Your task to perform on an android device: Search for duracell triple a on target, select the first entry, and add it to the cart. Image 0: 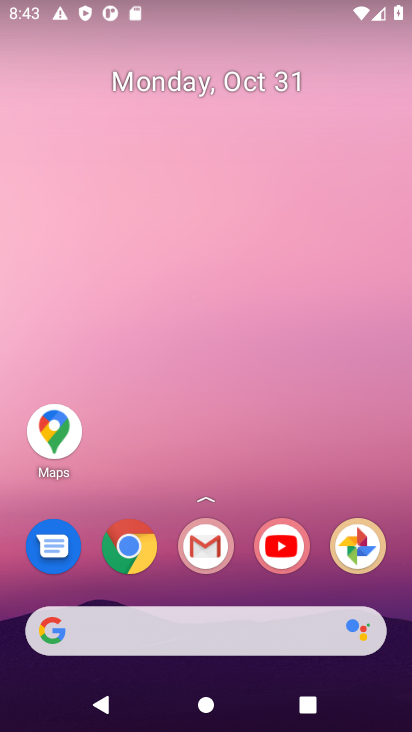
Step 0: click (141, 551)
Your task to perform on an android device: Search for duracell triple a on target, select the first entry, and add it to the cart. Image 1: 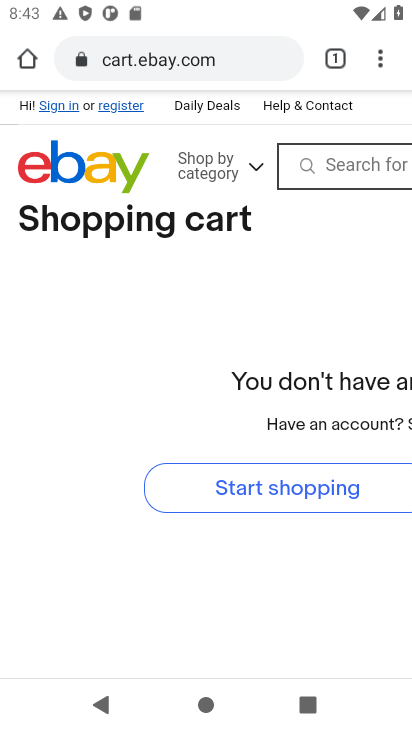
Step 1: click (175, 65)
Your task to perform on an android device: Search for duracell triple a on target, select the first entry, and add it to the cart. Image 2: 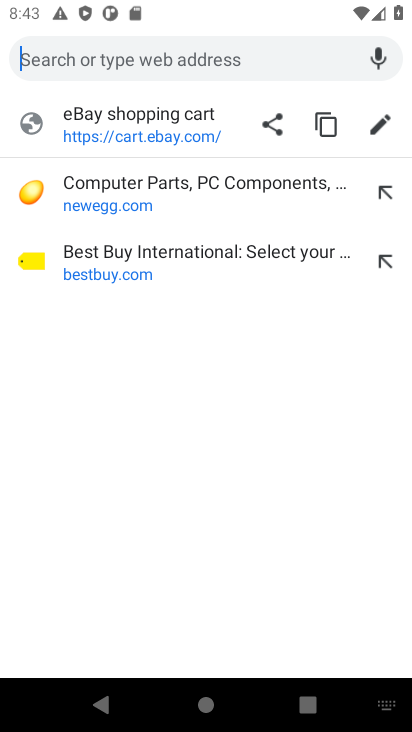
Step 2: type "duracell triple a on target"
Your task to perform on an android device: Search for duracell triple a on target, select the first entry, and add it to the cart. Image 3: 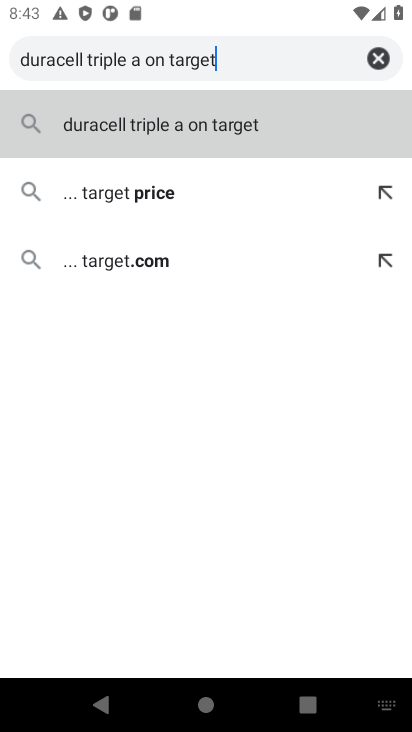
Step 3: press enter
Your task to perform on an android device: Search for duracell triple a on target, select the first entry, and add it to the cart. Image 4: 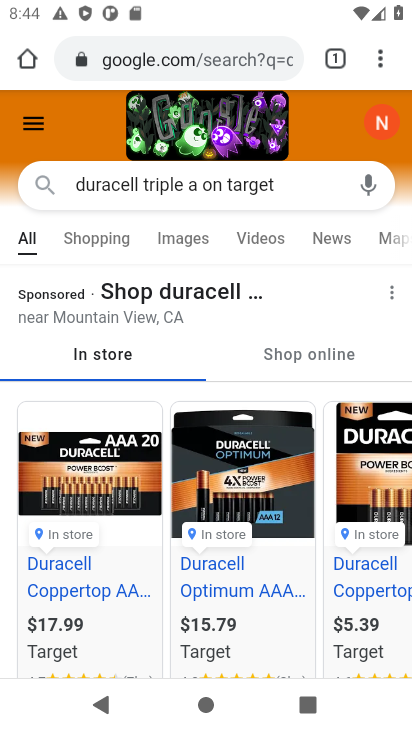
Step 4: drag from (156, 643) to (156, 535)
Your task to perform on an android device: Search for duracell triple a on target, select the first entry, and add it to the cart. Image 5: 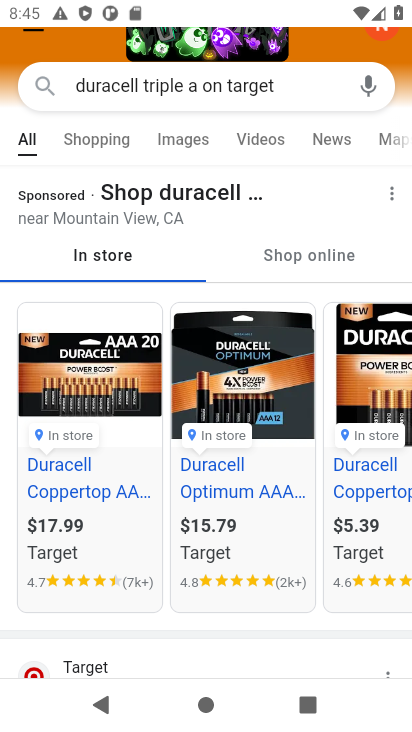
Step 5: click (79, 490)
Your task to perform on an android device: Search for duracell triple a on target, select the first entry, and add it to the cart. Image 6: 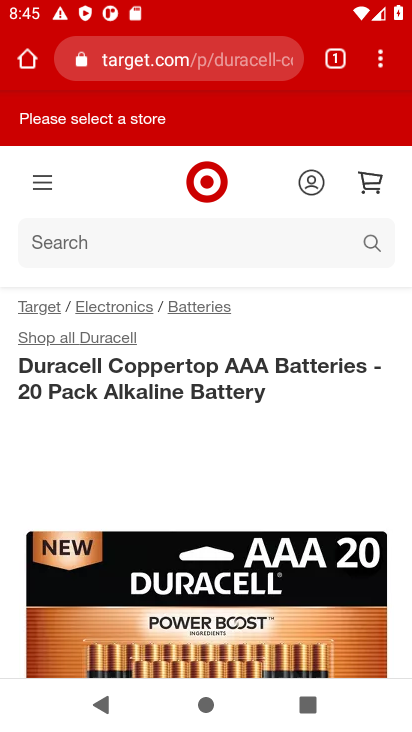
Step 6: drag from (123, 516) to (205, 270)
Your task to perform on an android device: Search for duracell triple a on target, select the first entry, and add it to the cart. Image 7: 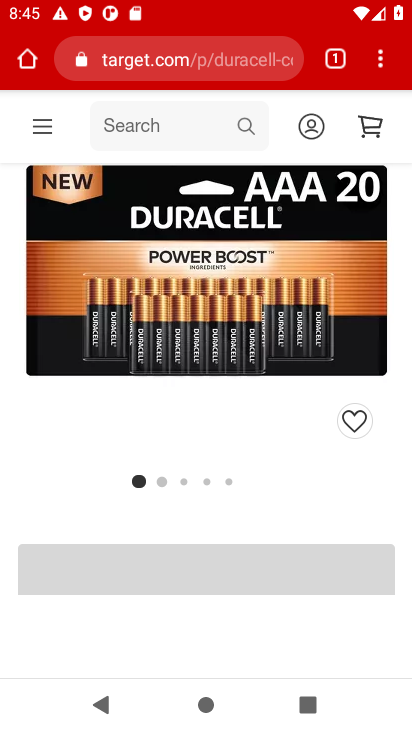
Step 7: click (189, 625)
Your task to perform on an android device: Search for duracell triple a on target, select the first entry, and add it to the cart. Image 8: 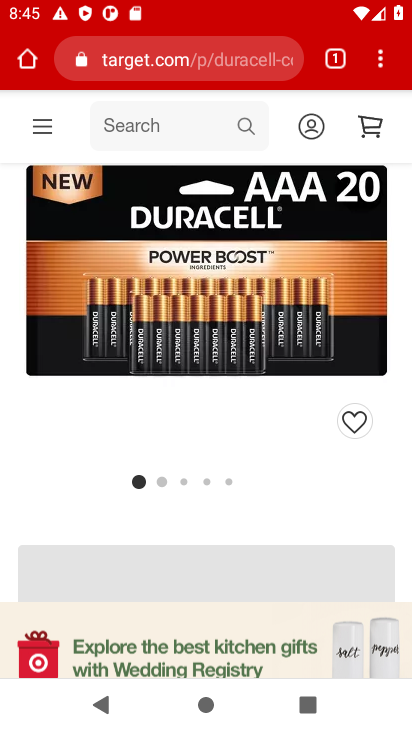
Step 8: drag from (192, 621) to (215, 262)
Your task to perform on an android device: Search for duracell triple a on target, select the first entry, and add it to the cart. Image 9: 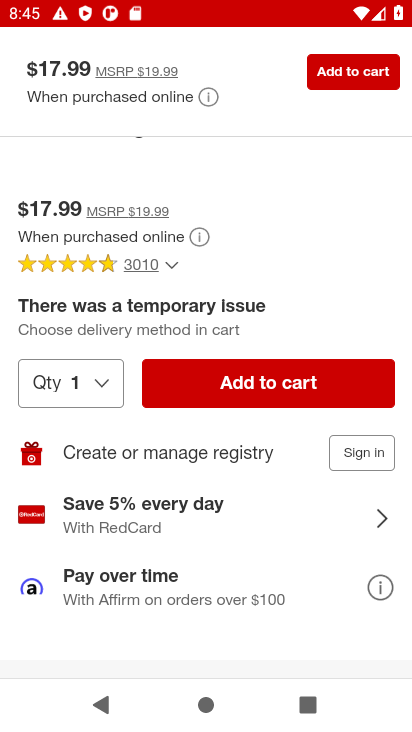
Step 9: click (231, 387)
Your task to perform on an android device: Search for duracell triple a on target, select the first entry, and add it to the cart. Image 10: 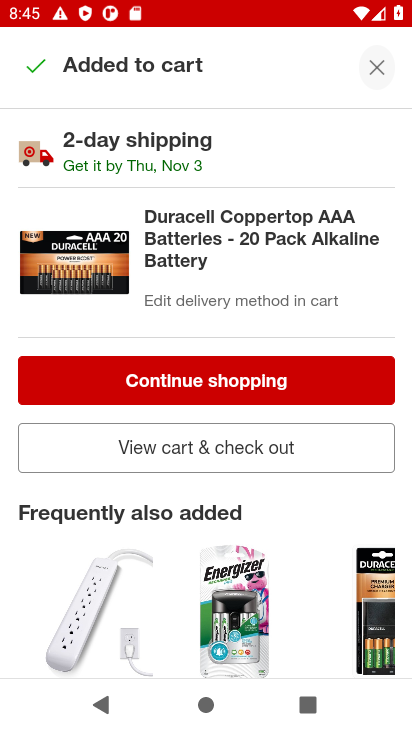
Step 10: task complete